Your task to perform on an android device: Find coffee shops on Maps Image 0: 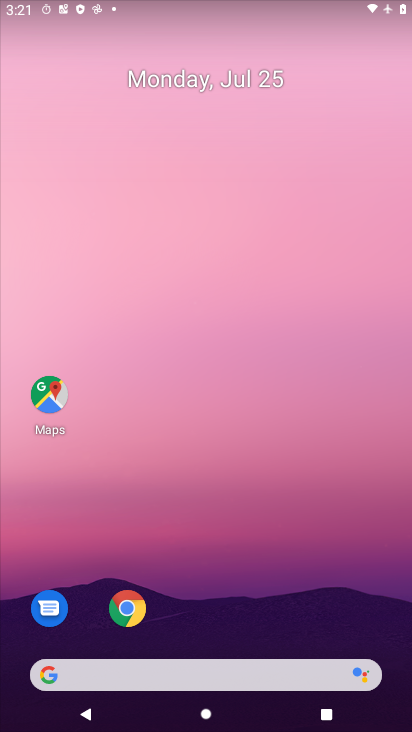
Step 0: drag from (235, 716) to (256, 205)
Your task to perform on an android device: Find coffee shops on Maps Image 1: 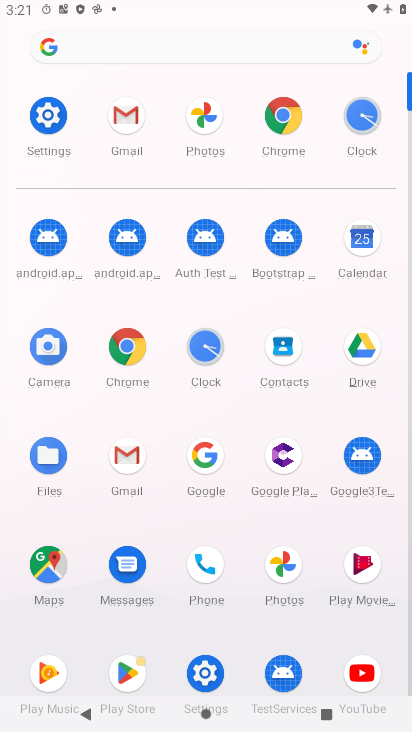
Step 1: click (41, 566)
Your task to perform on an android device: Find coffee shops on Maps Image 2: 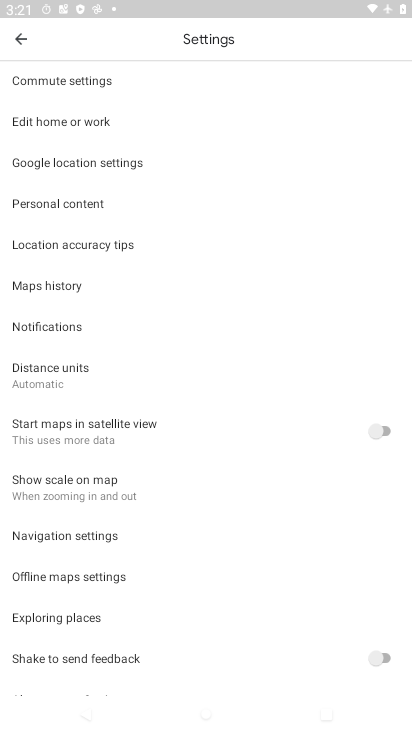
Step 2: click (15, 39)
Your task to perform on an android device: Find coffee shops on Maps Image 3: 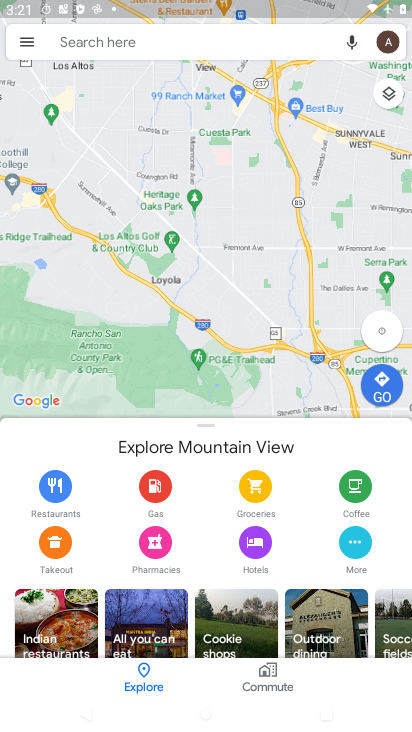
Step 3: click (192, 37)
Your task to perform on an android device: Find coffee shops on Maps Image 4: 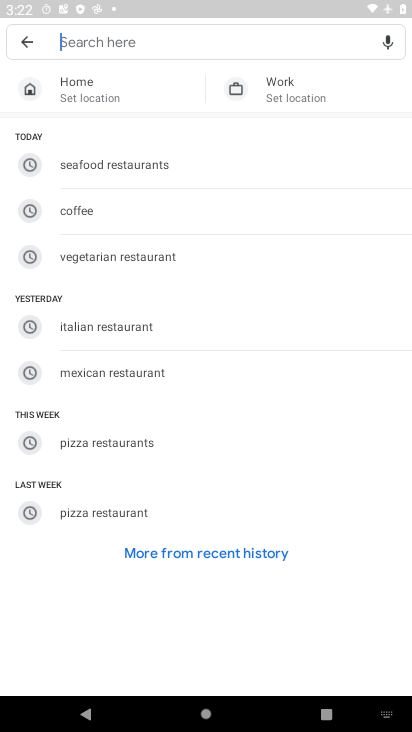
Step 4: type "coffee shops"
Your task to perform on an android device: Find coffee shops on Maps Image 5: 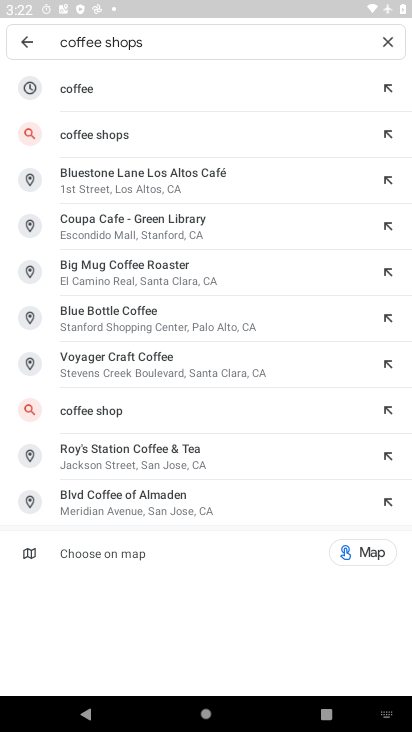
Step 5: click (195, 133)
Your task to perform on an android device: Find coffee shops on Maps Image 6: 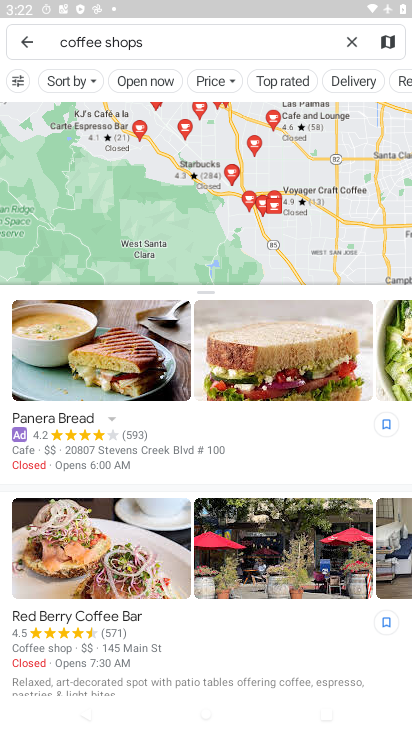
Step 6: task complete